Your task to perform on an android device: Show the shopping cart on target. Image 0: 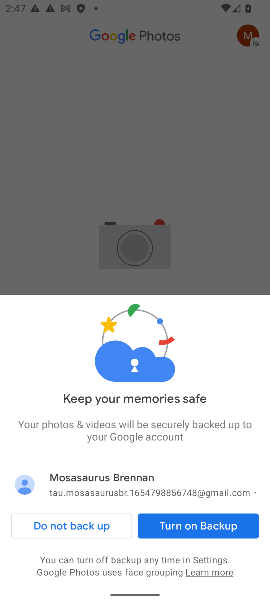
Step 0: press home button
Your task to perform on an android device: Show the shopping cart on target. Image 1: 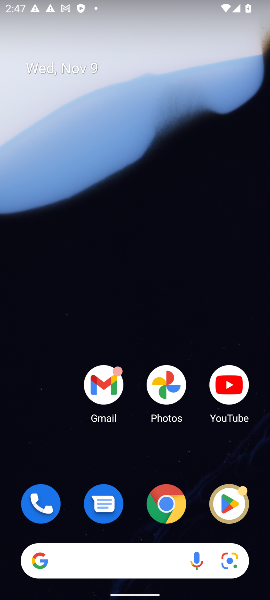
Step 1: click (175, 503)
Your task to perform on an android device: Show the shopping cart on target. Image 2: 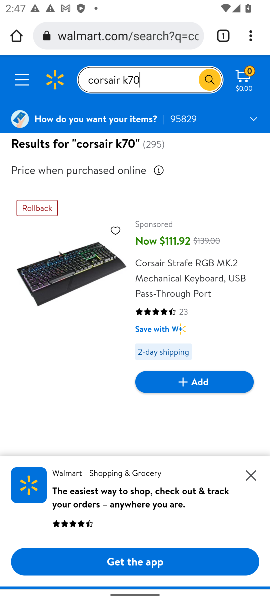
Step 2: click (112, 33)
Your task to perform on an android device: Show the shopping cart on target. Image 3: 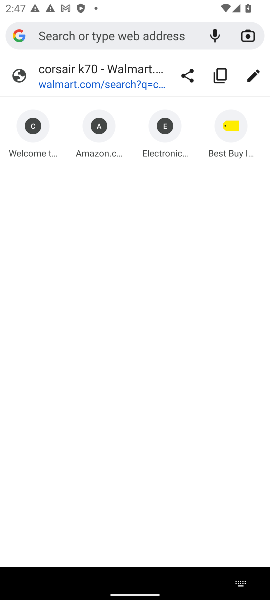
Step 3: type "target.com"
Your task to perform on an android device: Show the shopping cart on target. Image 4: 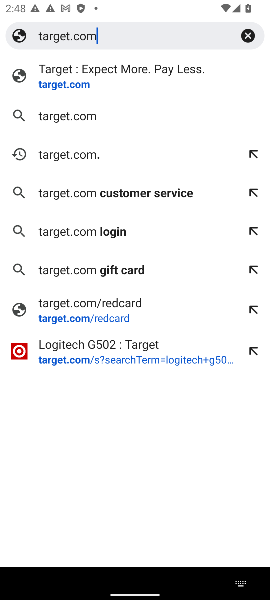
Step 4: click (72, 83)
Your task to perform on an android device: Show the shopping cart on target. Image 5: 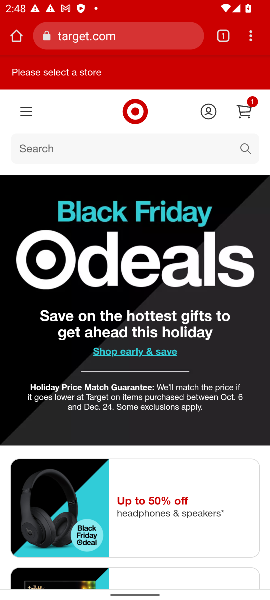
Step 5: click (256, 106)
Your task to perform on an android device: Show the shopping cart on target. Image 6: 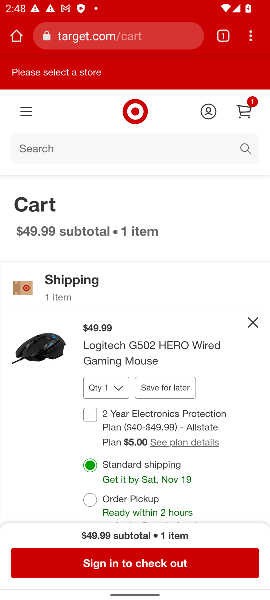
Step 6: task complete